Your task to perform on an android device: search for starred emails in the gmail app Image 0: 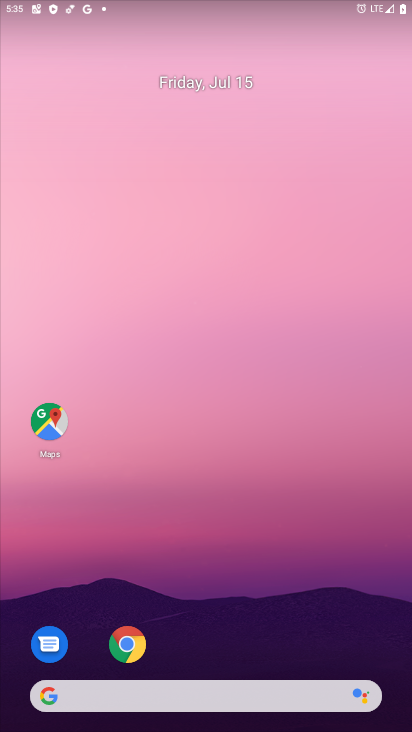
Step 0: drag from (246, 662) to (280, 74)
Your task to perform on an android device: search for starred emails in the gmail app Image 1: 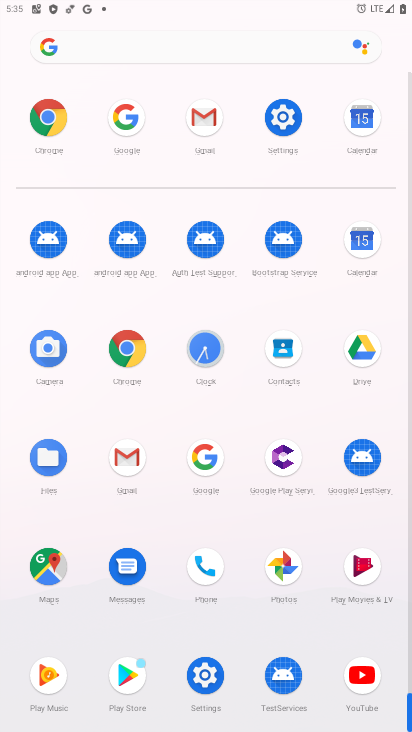
Step 1: click (116, 461)
Your task to perform on an android device: search for starred emails in the gmail app Image 2: 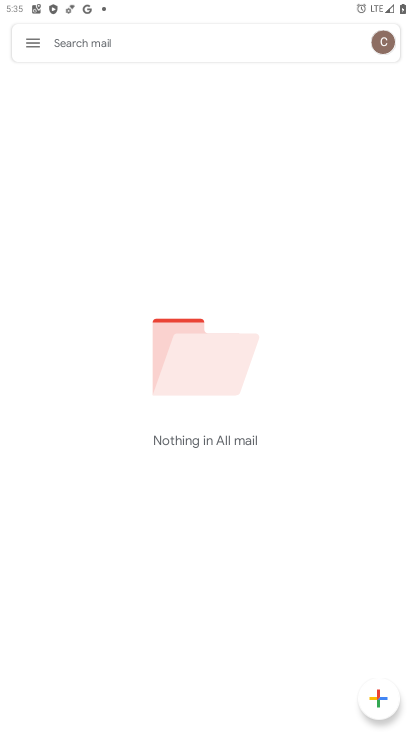
Step 2: click (32, 47)
Your task to perform on an android device: search for starred emails in the gmail app Image 3: 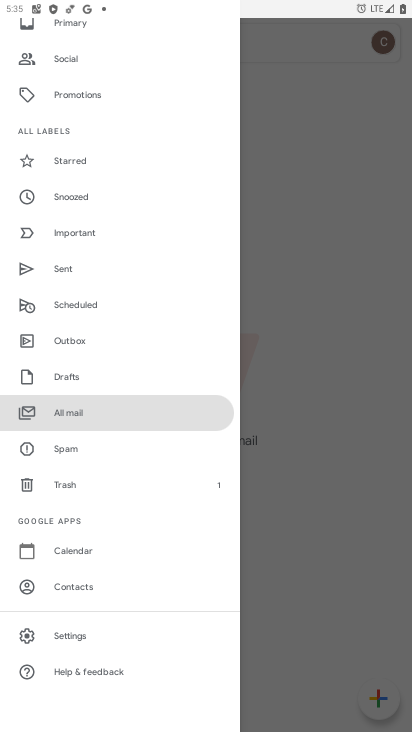
Step 3: click (78, 164)
Your task to perform on an android device: search for starred emails in the gmail app Image 4: 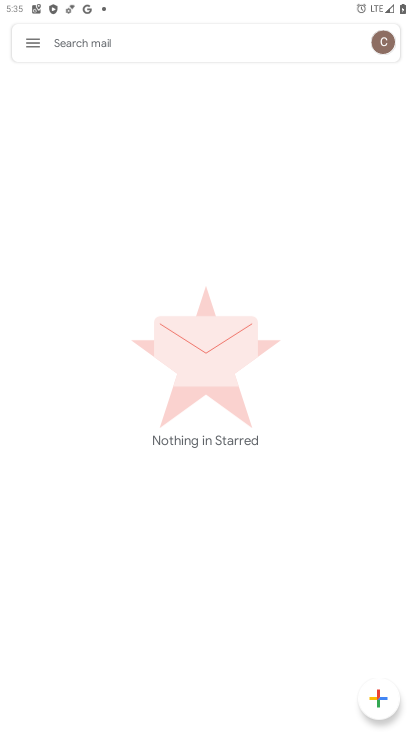
Step 4: task complete